Your task to perform on an android device: Do I have any events this weekend? Image 0: 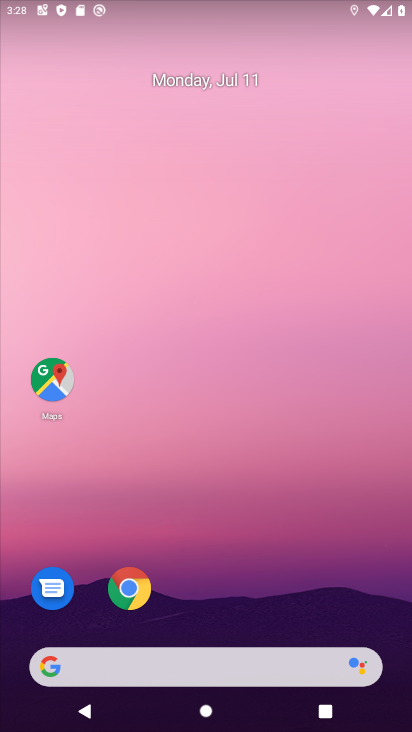
Step 0: drag from (175, 666) to (234, 33)
Your task to perform on an android device: Do I have any events this weekend? Image 1: 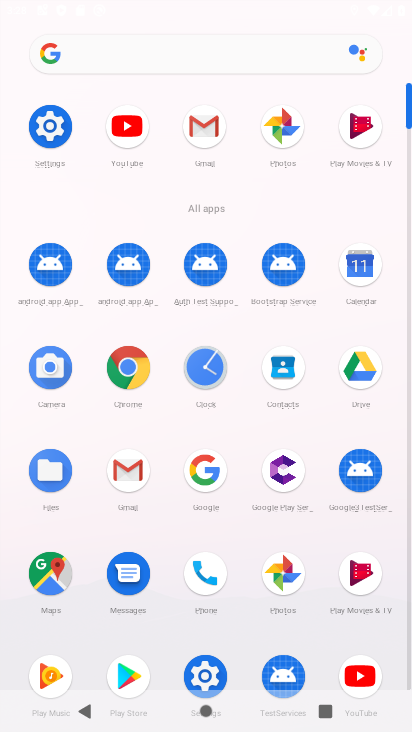
Step 1: click (356, 252)
Your task to perform on an android device: Do I have any events this weekend? Image 2: 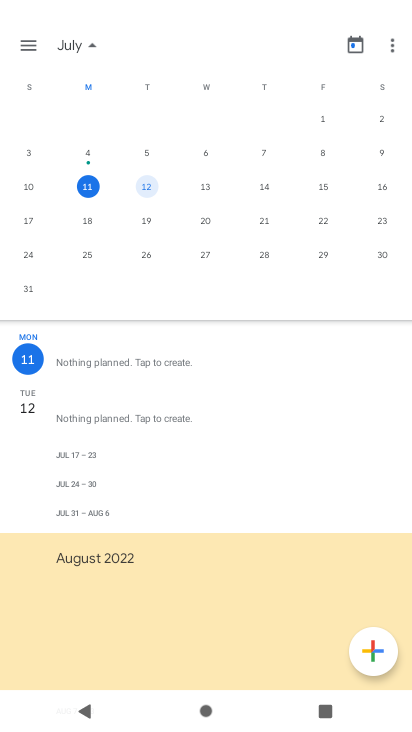
Step 2: click (379, 190)
Your task to perform on an android device: Do I have any events this weekend? Image 3: 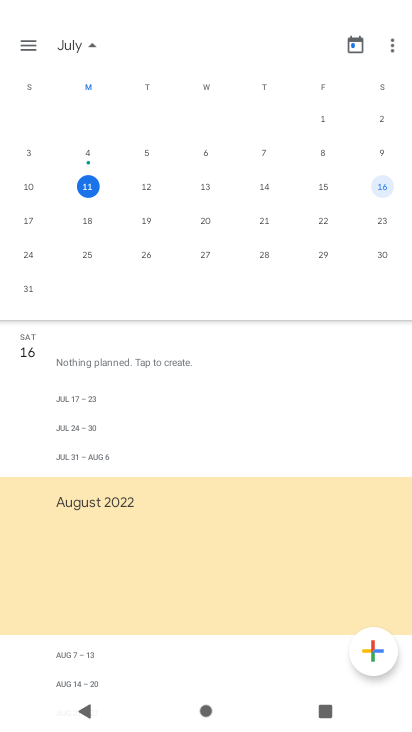
Step 3: click (28, 216)
Your task to perform on an android device: Do I have any events this weekend? Image 4: 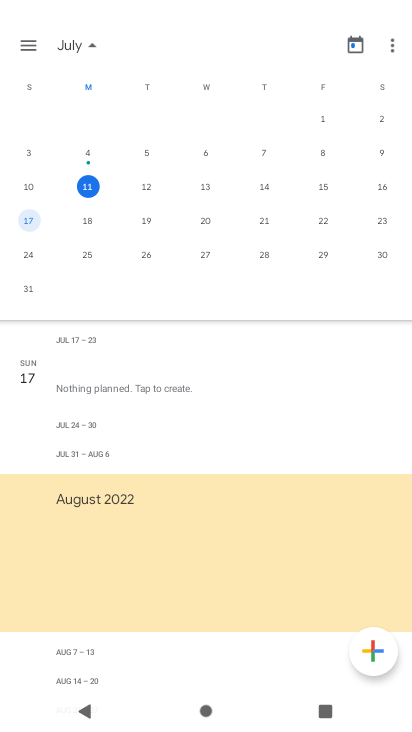
Step 4: task complete